Your task to perform on an android device: Open maps Image 0: 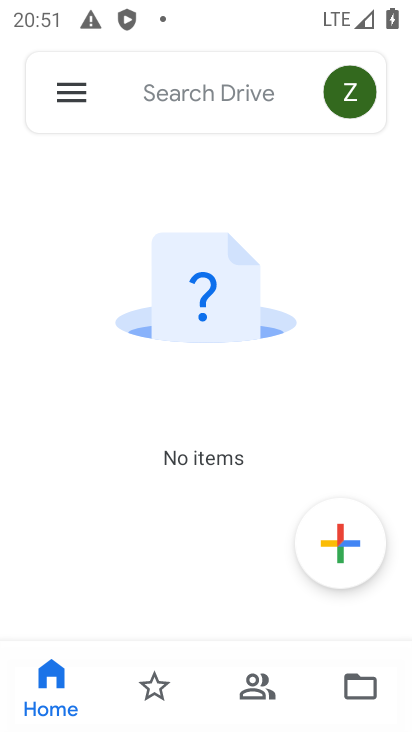
Step 0: press home button
Your task to perform on an android device: Open maps Image 1: 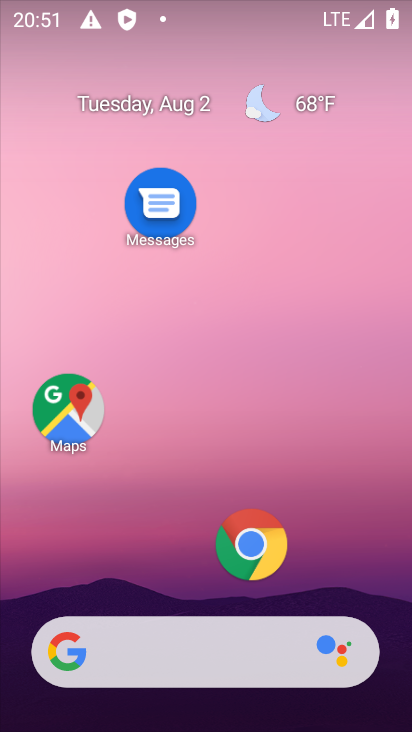
Step 1: click (72, 412)
Your task to perform on an android device: Open maps Image 2: 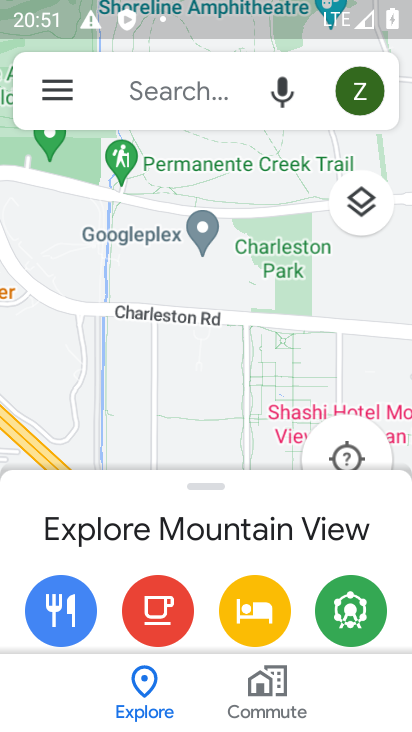
Step 2: task complete